Your task to perform on an android device: When is my next meeting? Image 0: 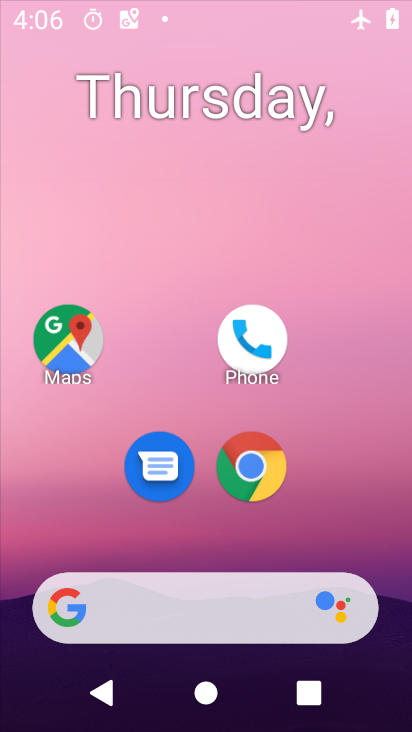
Step 0: drag from (347, 143) to (287, 727)
Your task to perform on an android device: When is my next meeting? Image 1: 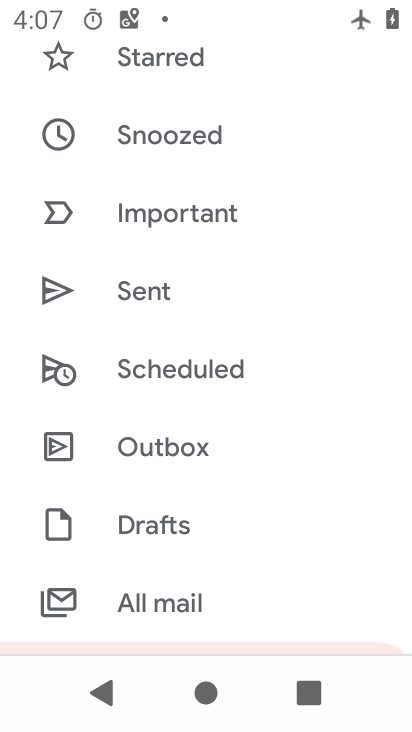
Step 1: drag from (197, 345) to (317, 706)
Your task to perform on an android device: When is my next meeting? Image 2: 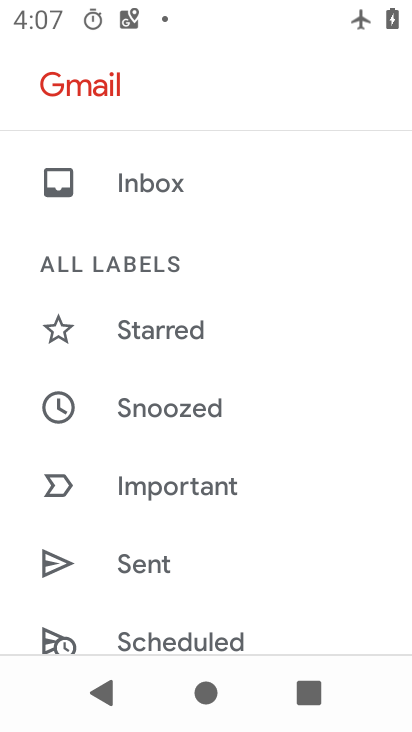
Step 2: press home button
Your task to perform on an android device: When is my next meeting? Image 3: 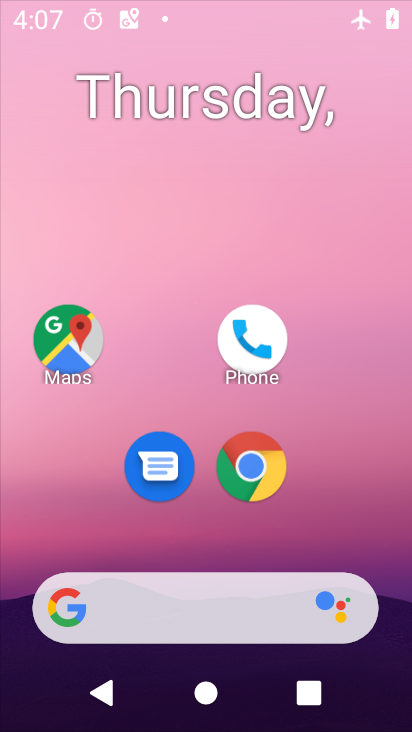
Step 3: drag from (210, 613) to (255, 220)
Your task to perform on an android device: When is my next meeting? Image 4: 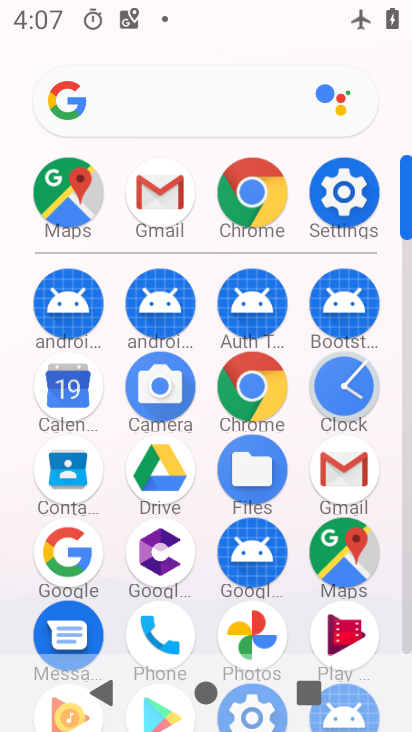
Step 4: click (78, 390)
Your task to perform on an android device: When is my next meeting? Image 5: 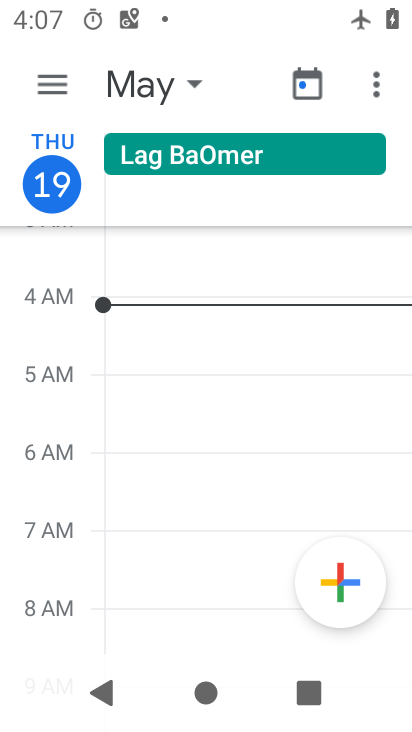
Step 5: click (194, 74)
Your task to perform on an android device: When is my next meeting? Image 6: 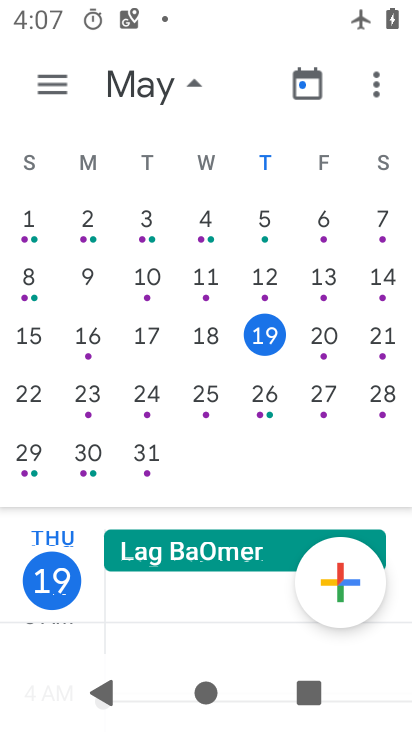
Step 6: click (266, 335)
Your task to perform on an android device: When is my next meeting? Image 7: 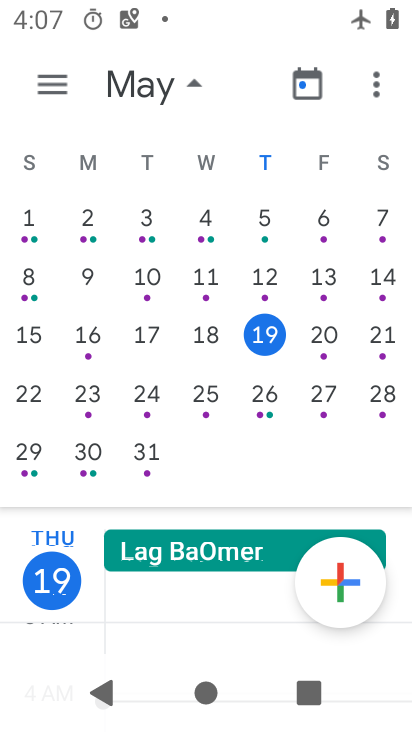
Step 7: task complete